Your task to perform on an android device: Go to calendar. Show me events next week Image 0: 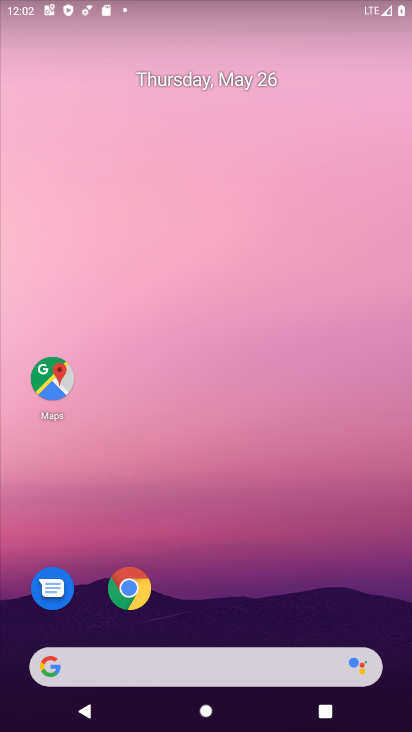
Step 0: drag from (244, 575) to (211, 49)
Your task to perform on an android device: Go to calendar. Show me events next week Image 1: 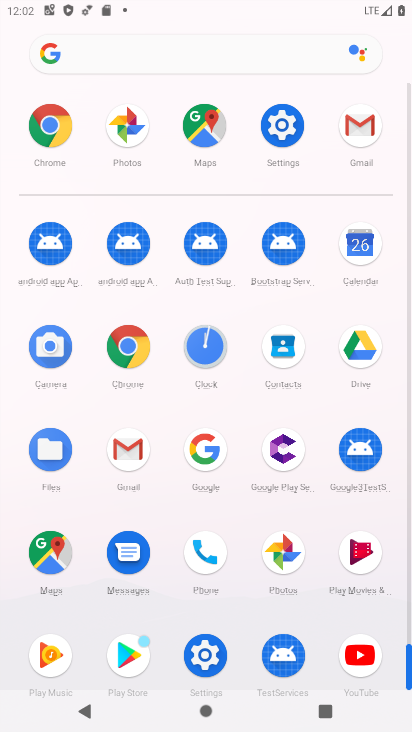
Step 1: drag from (8, 588) to (9, 199)
Your task to perform on an android device: Go to calendar. Show me events next week Image 2: 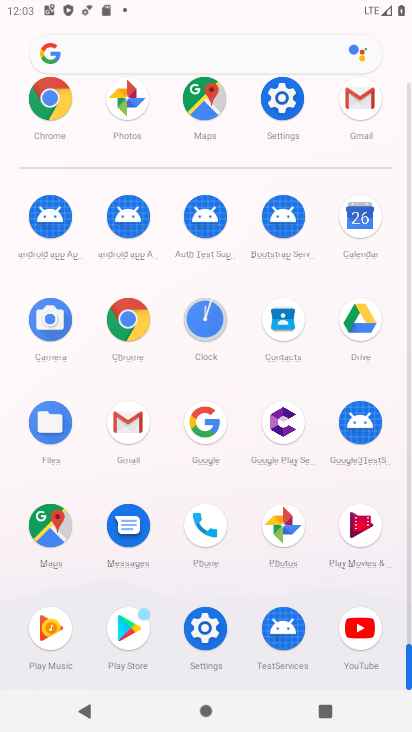
Step 2: click (366, 210)
Your task to perform on an android device: Go to calendar. Show me events next week Image 3: 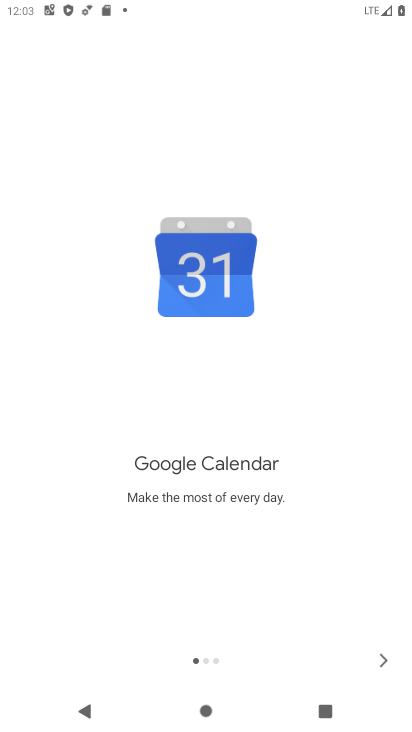
Step 3: click (379, 650)
Your task to perform on an android device: Go to calendar. Show me events next week Image 4: 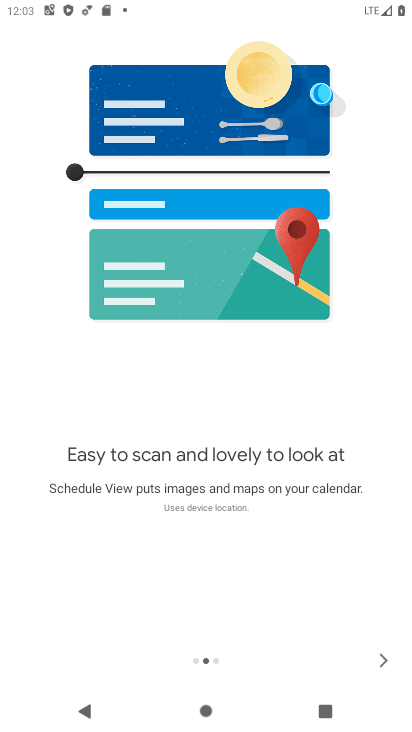
Step 4: click (386, 660)
Your task to perform on an android device: Go to calendar. Show me events next week Image 5: 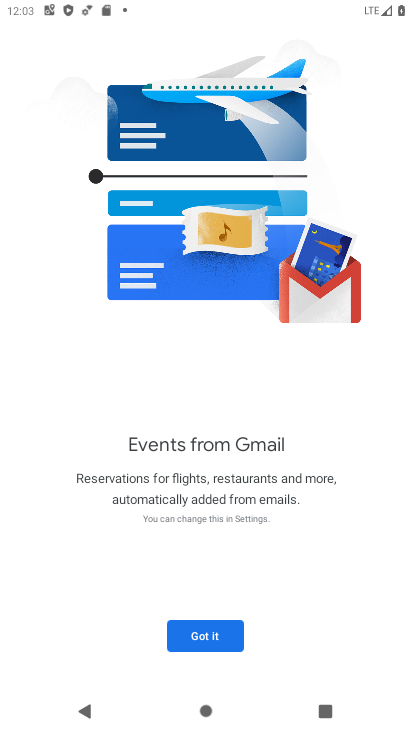
Step 5: click (224, 632)
Your task to perform on an android device: Go to calendar. Show me events next week Image 6: 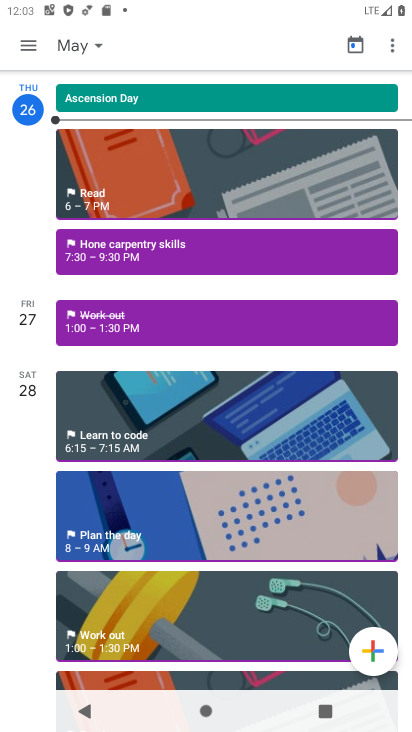
Step 6: click (66, 40)
Your task to perform on an android device: Go to calendar. Show me events next week Image 7: 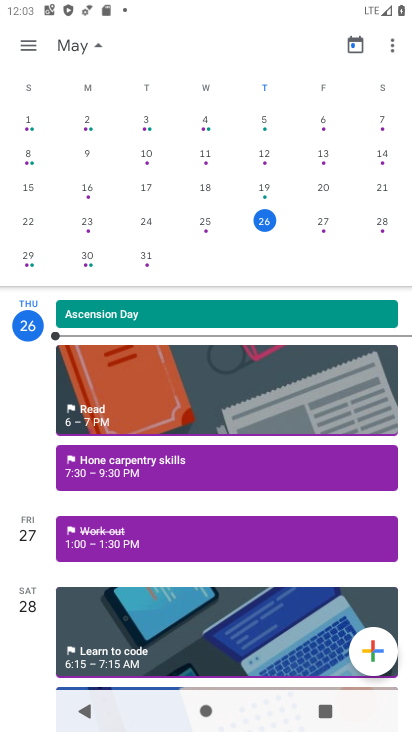
Step 7: click (14, 38)
Your task to perform on an android device: Go to calendar. Show me events next week Image 8: 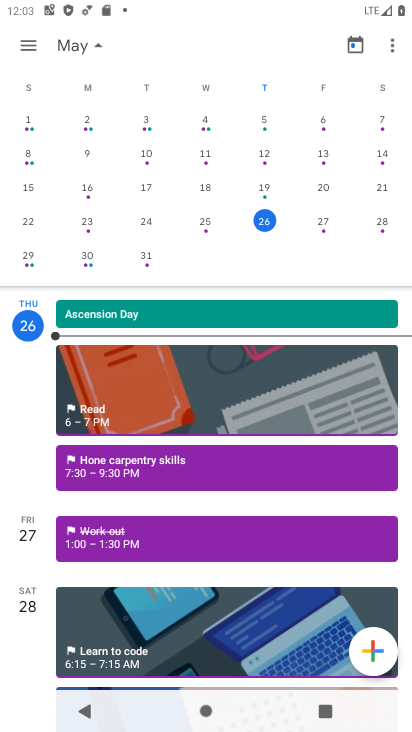
Step 8: click (18, 40)
Your task to perform on an android device: Go to calendar. Show me events next week Image 9: 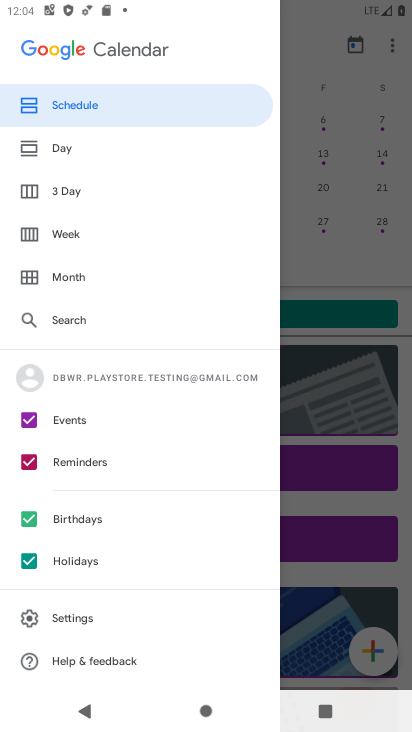
Step 9: click (77, 224)
Your task to perform on an android device: Go to calendar. Show me events next week Image 10: 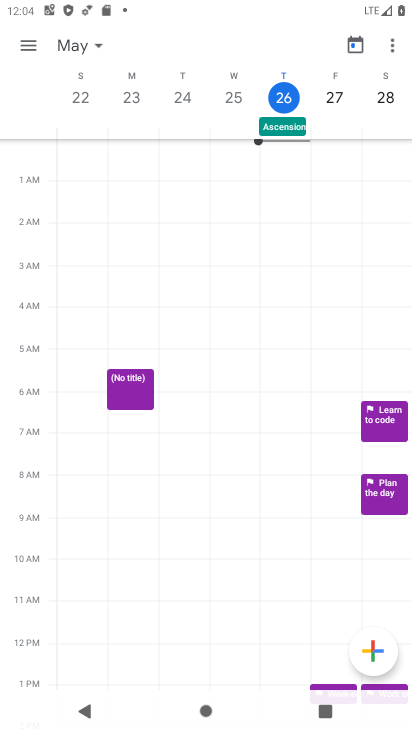
Step 10: task complete